Your task to perform on an android device: Open Chrome and go to the settings page Image 0: 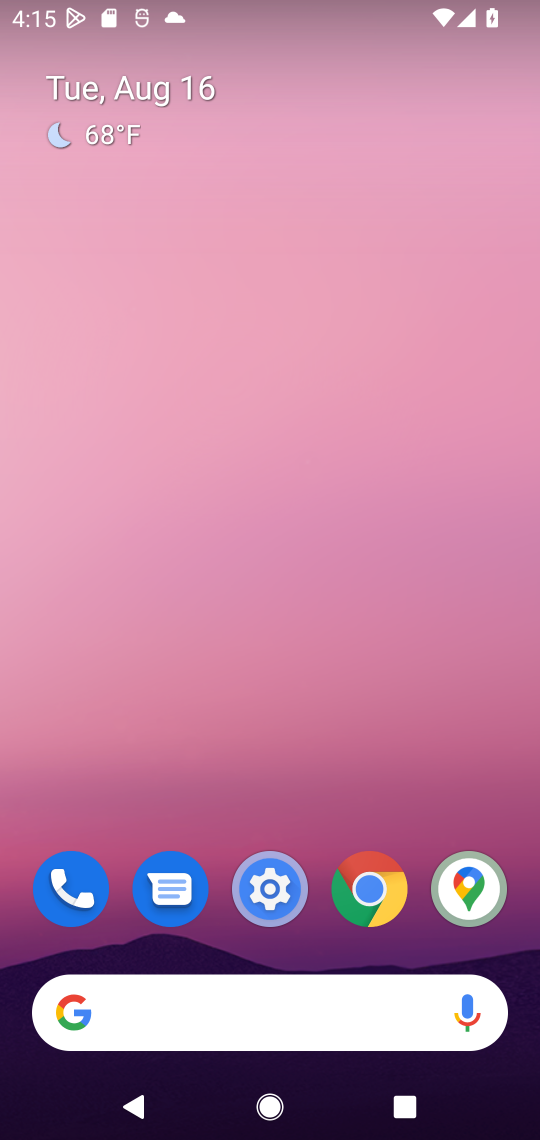
Step 0: click (350, 889)
Your task to perform on an android device: Open Chrome and go to the settings page Image 1: 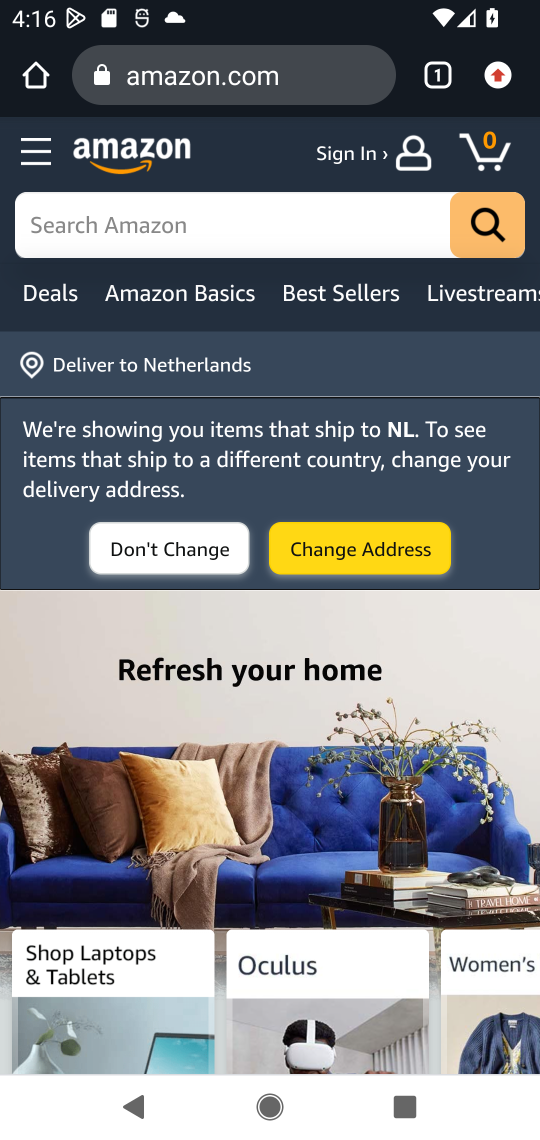
Step 1: task complete